Your task to perform on an android device: What's the weather today? Image 0: 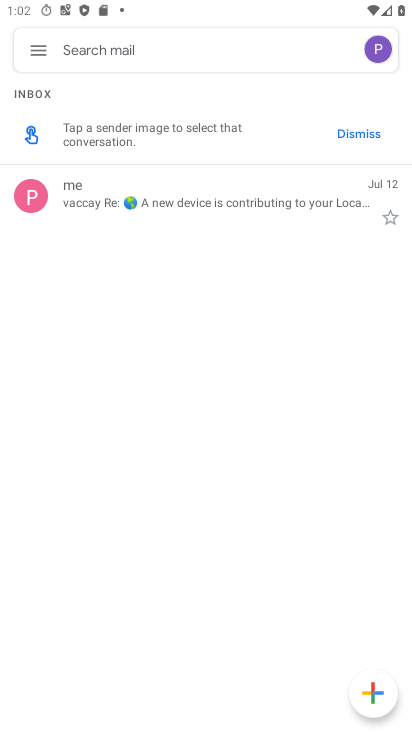
Step 0: press home button
Your task to perform on an android device: What's the weather today? Image 1: 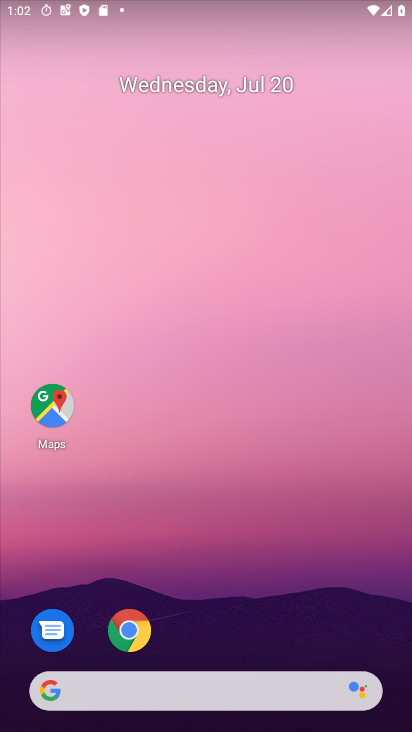
Step 1: click (122, 686)
Your task to perform on an android device: What's the weather today? Image 2: 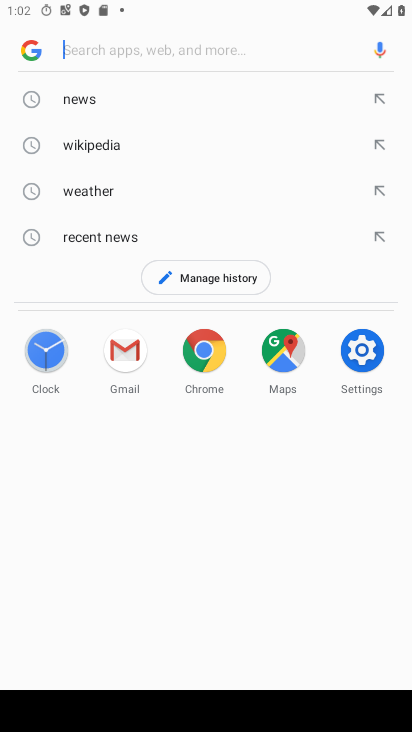
Step 2: type "what's the weather today"
Your task to perform on an android device: What's the weather today? Image 3: 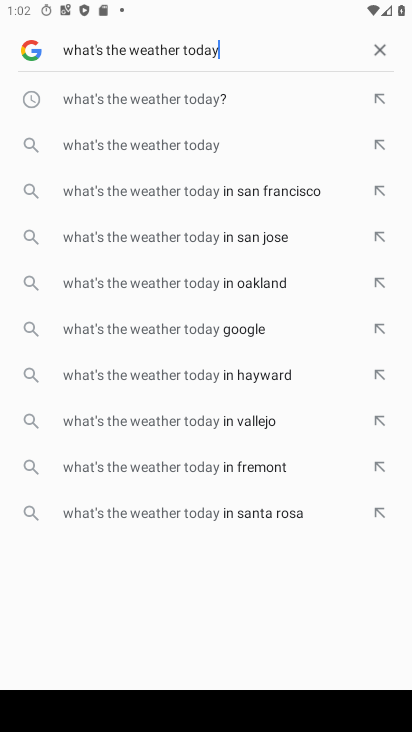
Step 3: click (158, 100)
Your task to perform on an android device: What's the weather today? Image 4: 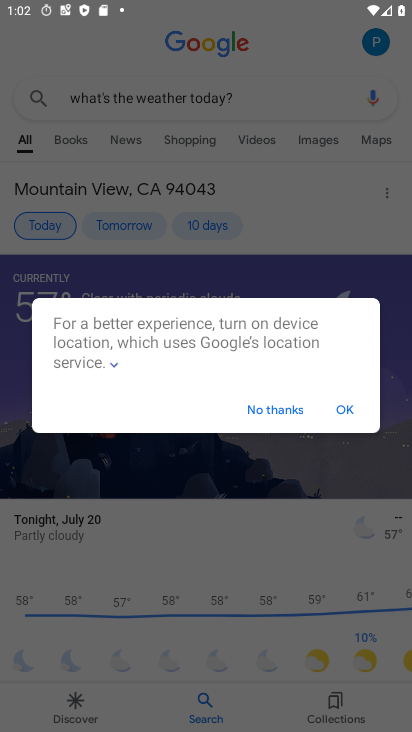
Step 4: click (354, 406)
Your task to perform on an android device: What's the weather today? Image 5: 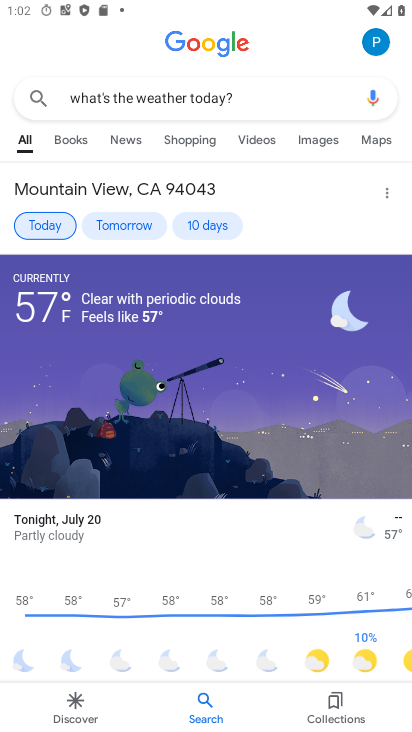
Step 5: task complete